Your task to perform on an android device: empty trash in the gmail app Image 0: 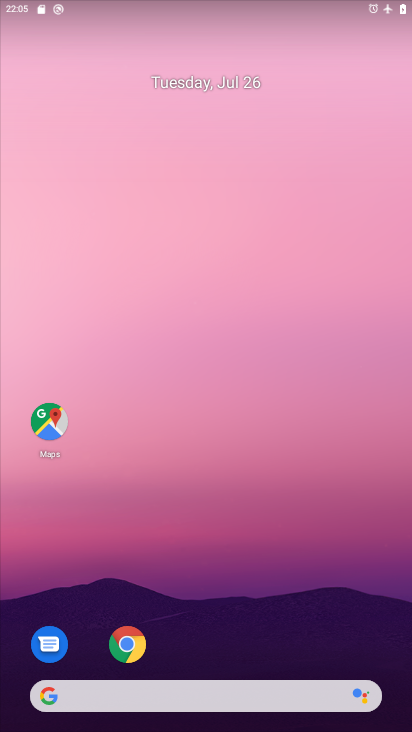
Step 0: drag from (188, 700) to (244, 212)
Your task to perform on an android device: empty trash in the gmail app Image 1: 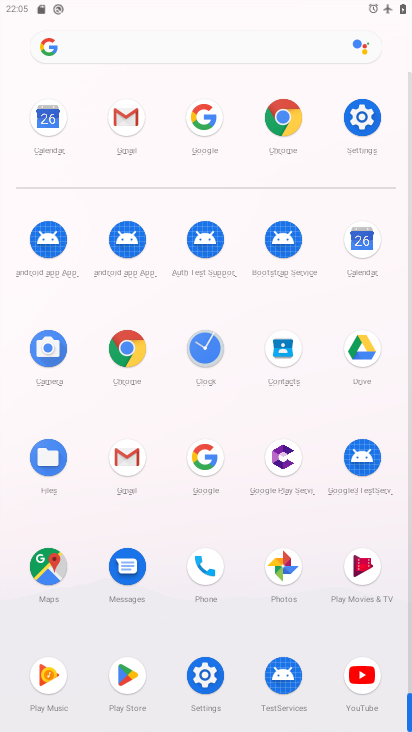
Step 1: click (121, 96)
Your task to perform on an android device: empty trash in the gmail app Image 2: 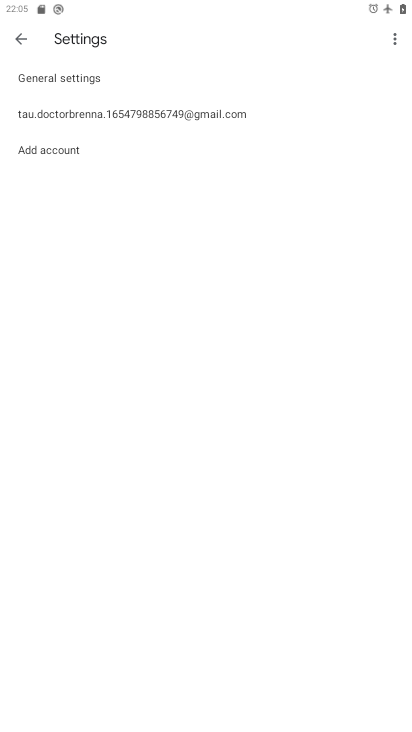
Step 2: click (27, 44)
Your task to perform on an android device: empty trash in the gmail app Image 3: 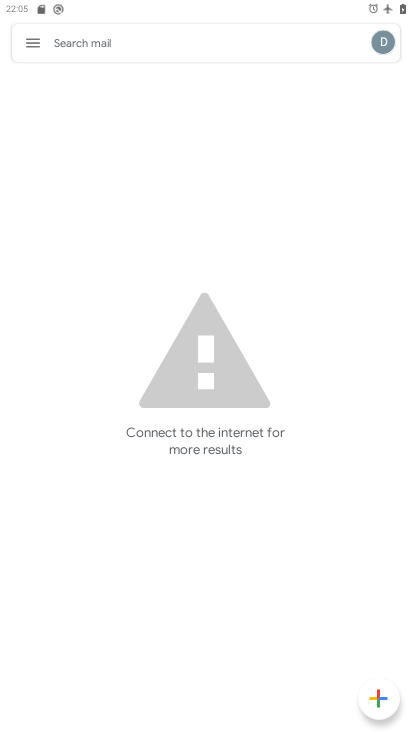
Step 3: click (27, 44)
Your task to perform on an android device: empty trash in the gmail app Image 4: 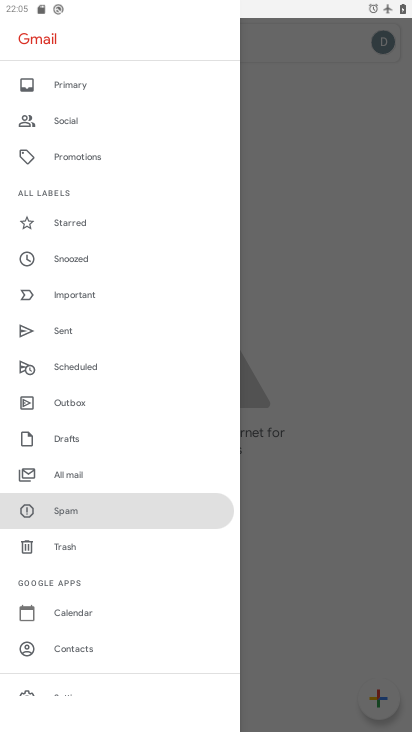
Step 4: click (59, 544)
Your task to perform on an android device: empty trash in the gmail app Image 5: 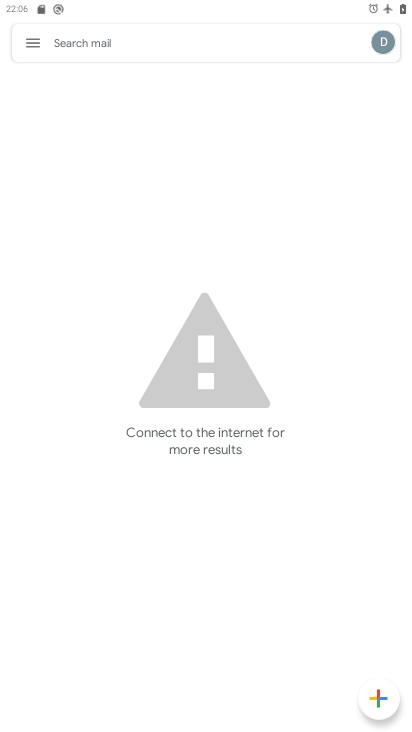
Step 5: task complete